Your task to perform on an android device: uninstall "Gboard" Image 0: 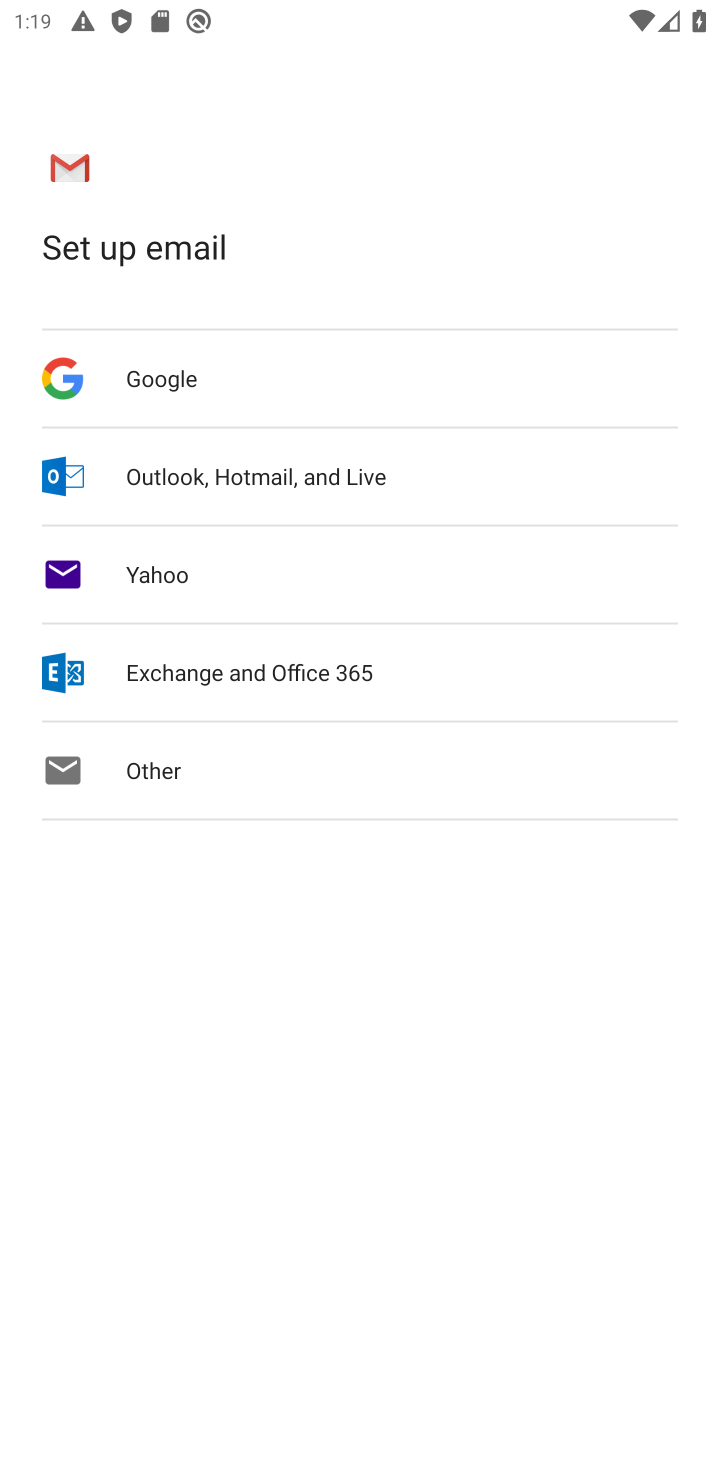
Step 0: press home button
Your task to perform on an android device: uninstall "Gboard" Image 1: 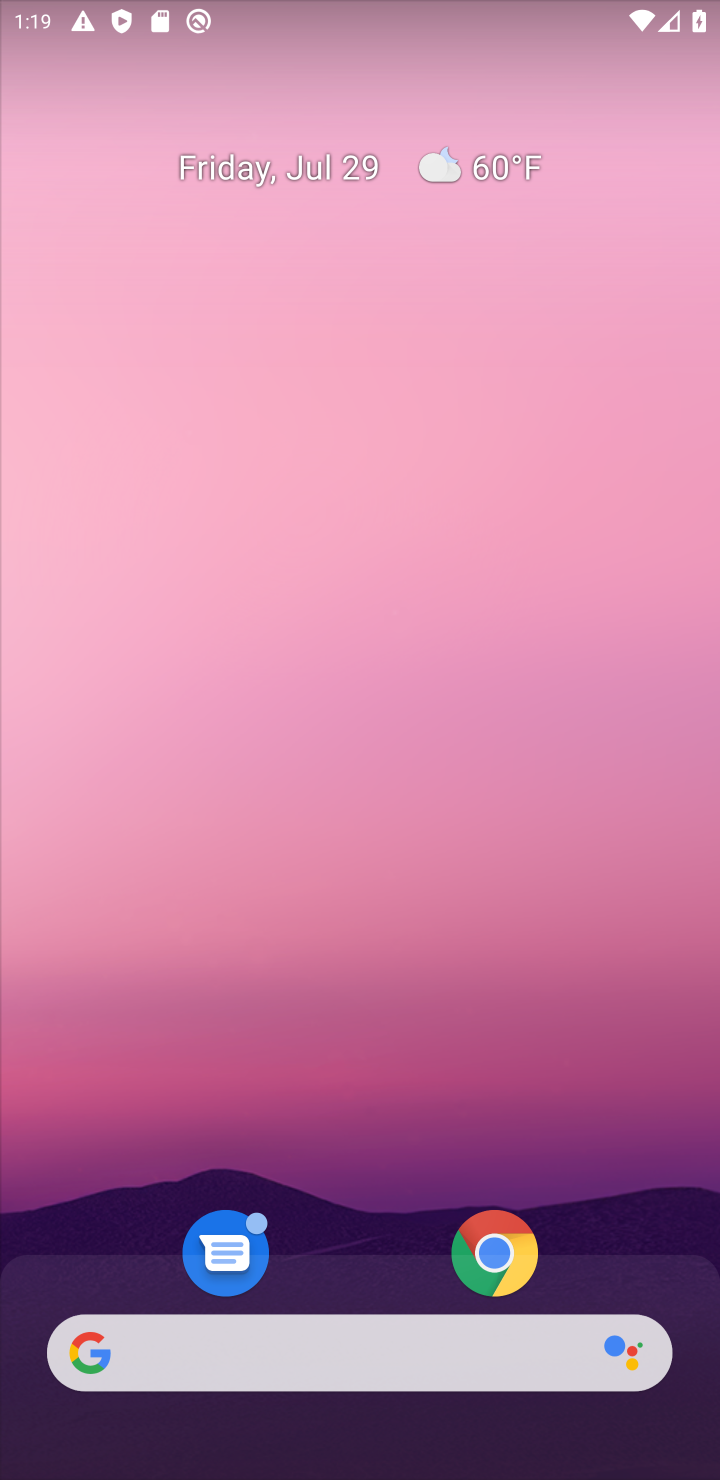
Step 1: drag from (296, 941) to (413, 226)
Your task to perform on an android device: uninstall "Gboard" Image 2: 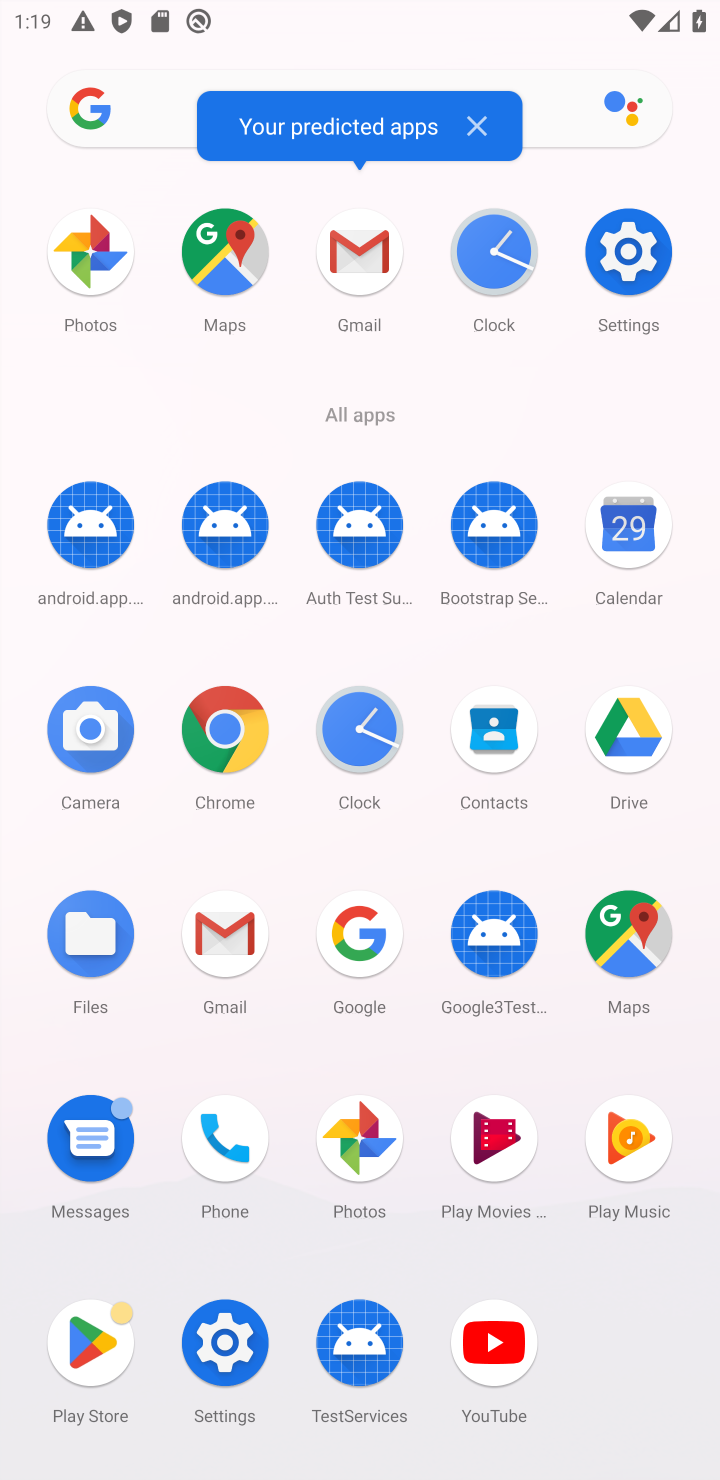
Step 2: click (52, 1351)
Your task to perform on an android device: uninstall "Gboard" Image 3: 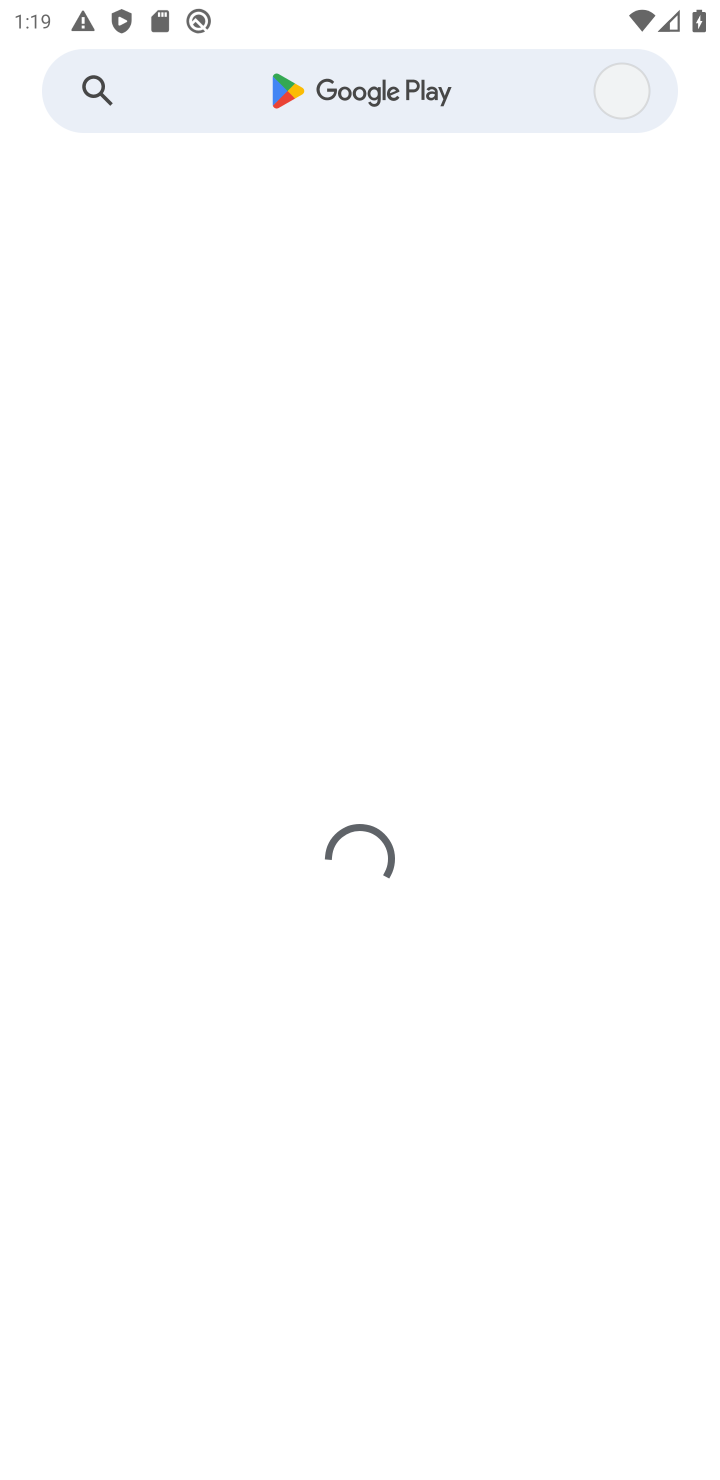
Step 3: click (95, 85)
Your task to perform on an android device: uninstall "Gboard" Image 4: 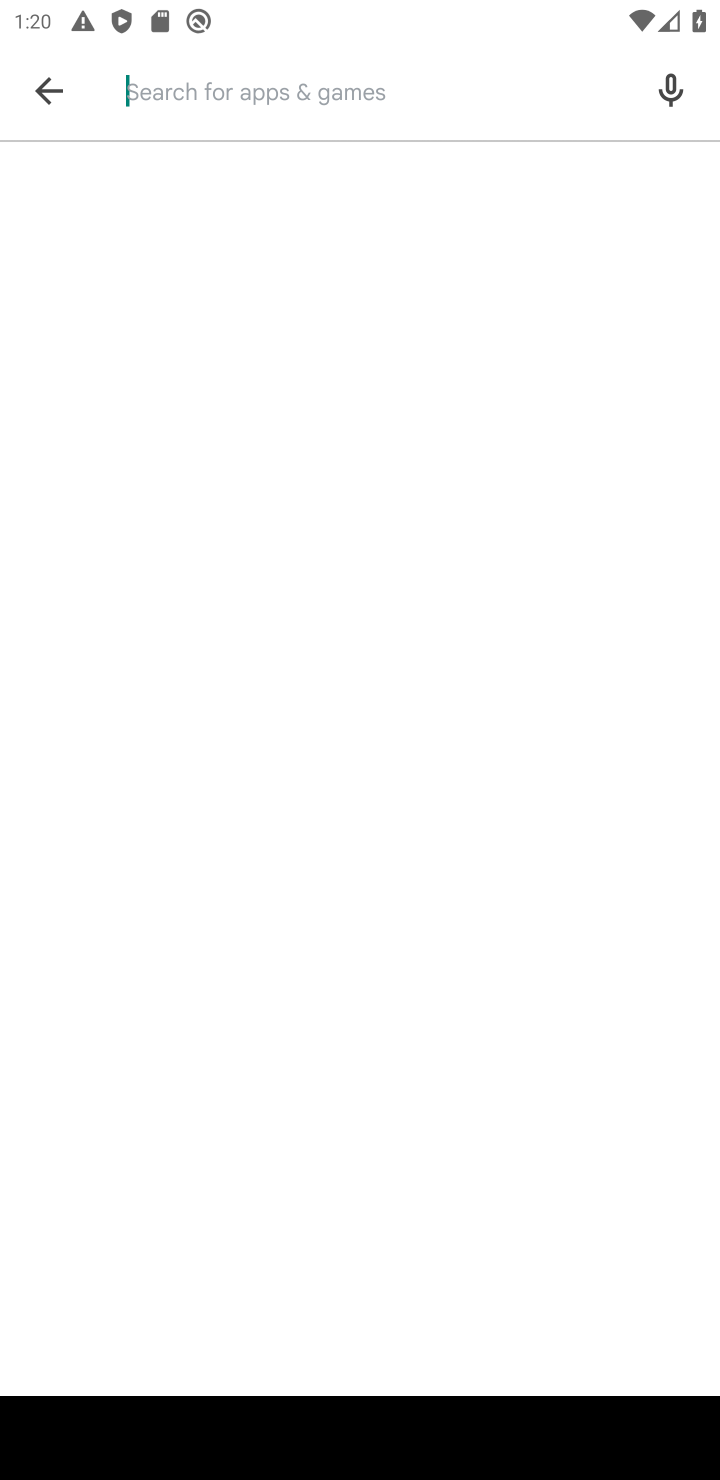
Step 4: type "gboard"
Your task to perform on an android device: uninstall "Gboard" Image 5: 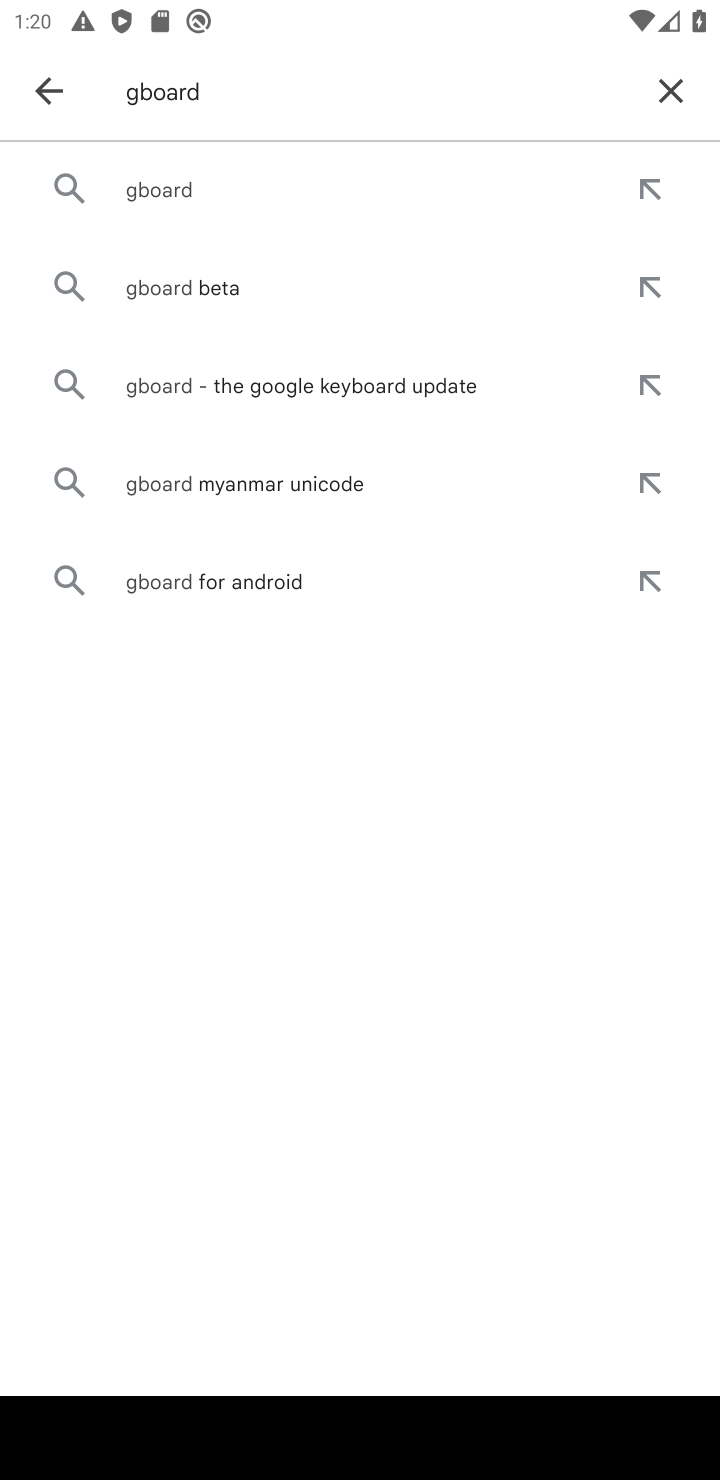
Step 5: click (225, 189)
Your task to perform on an android device: uninstall "Gboard" Image 6: 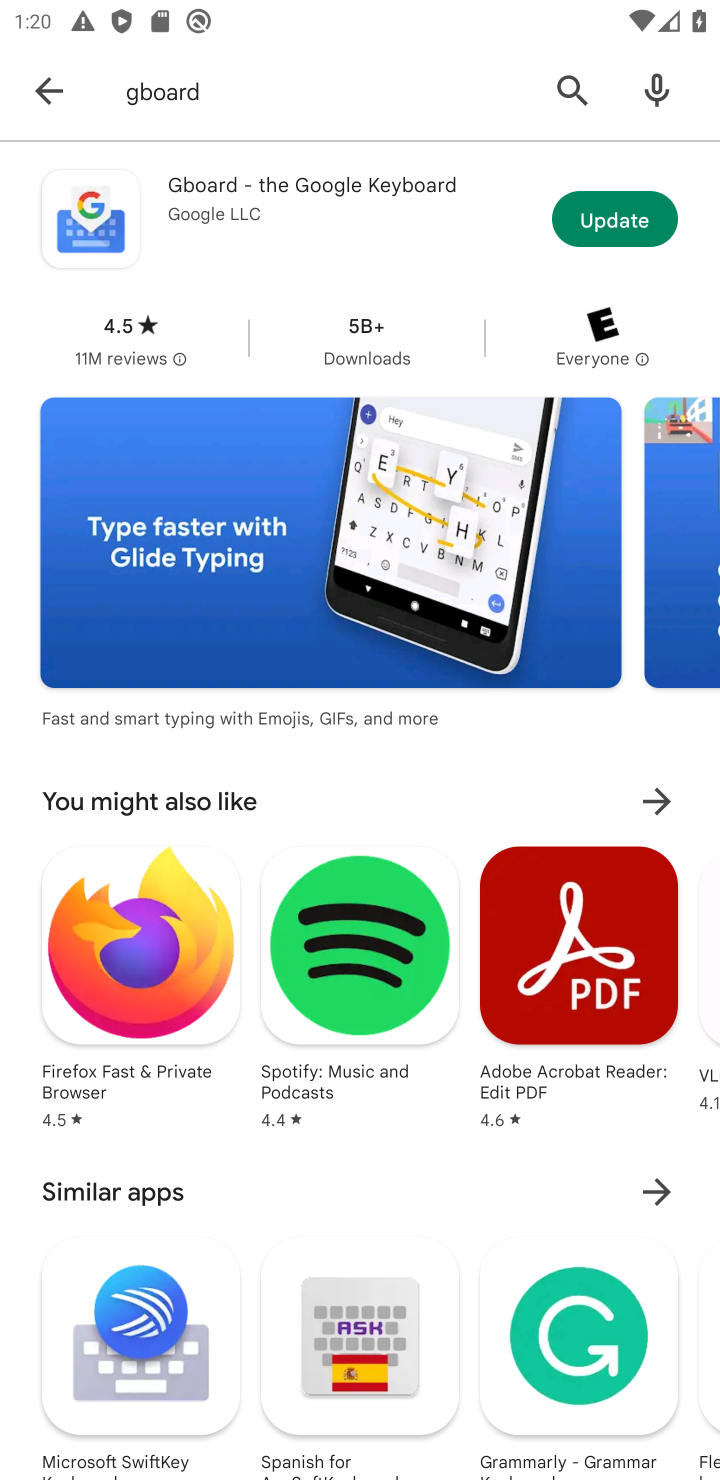
Step 6: click (595, 222)
Your task to perform on an android device: uninstall "Gboard" Image 7: 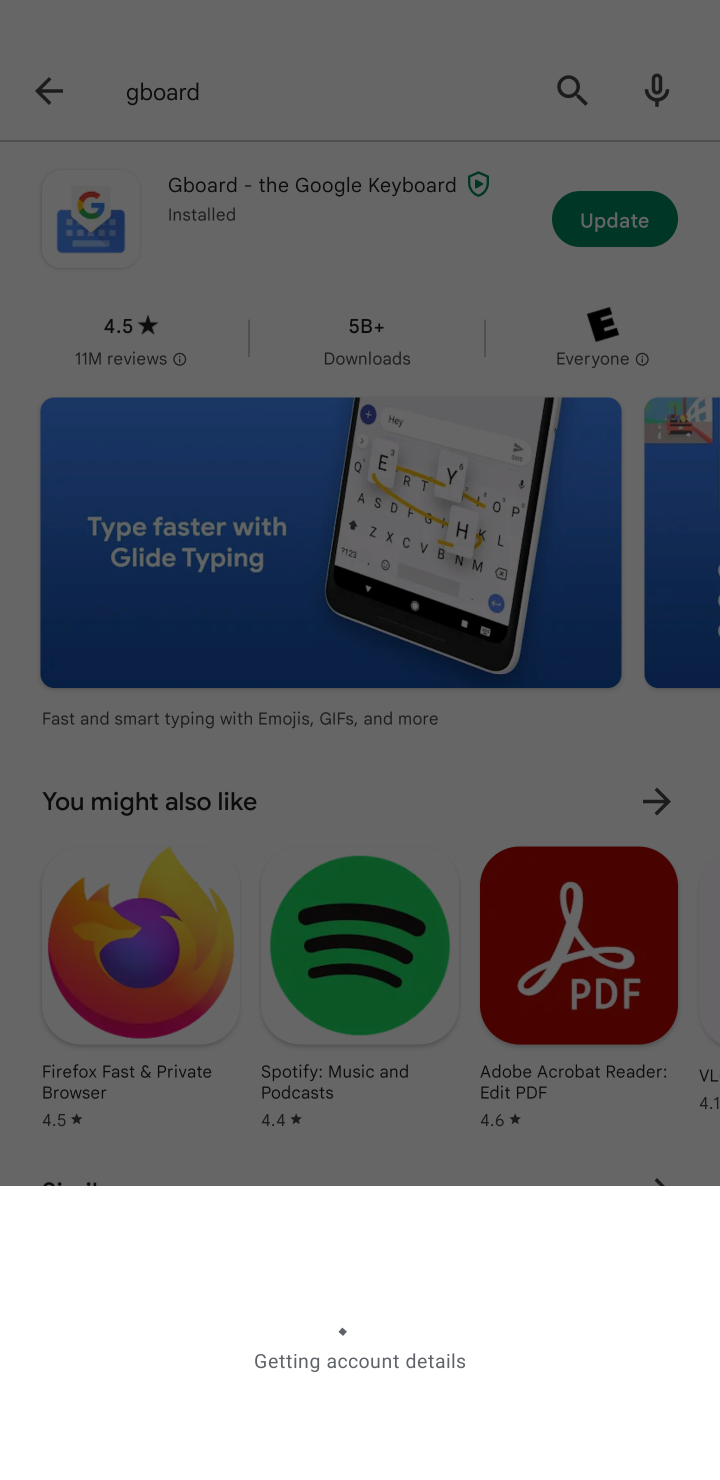
Step 7: click (610, 215)
Your task to perform on an android device: uninstall "Gboard" Image 8: 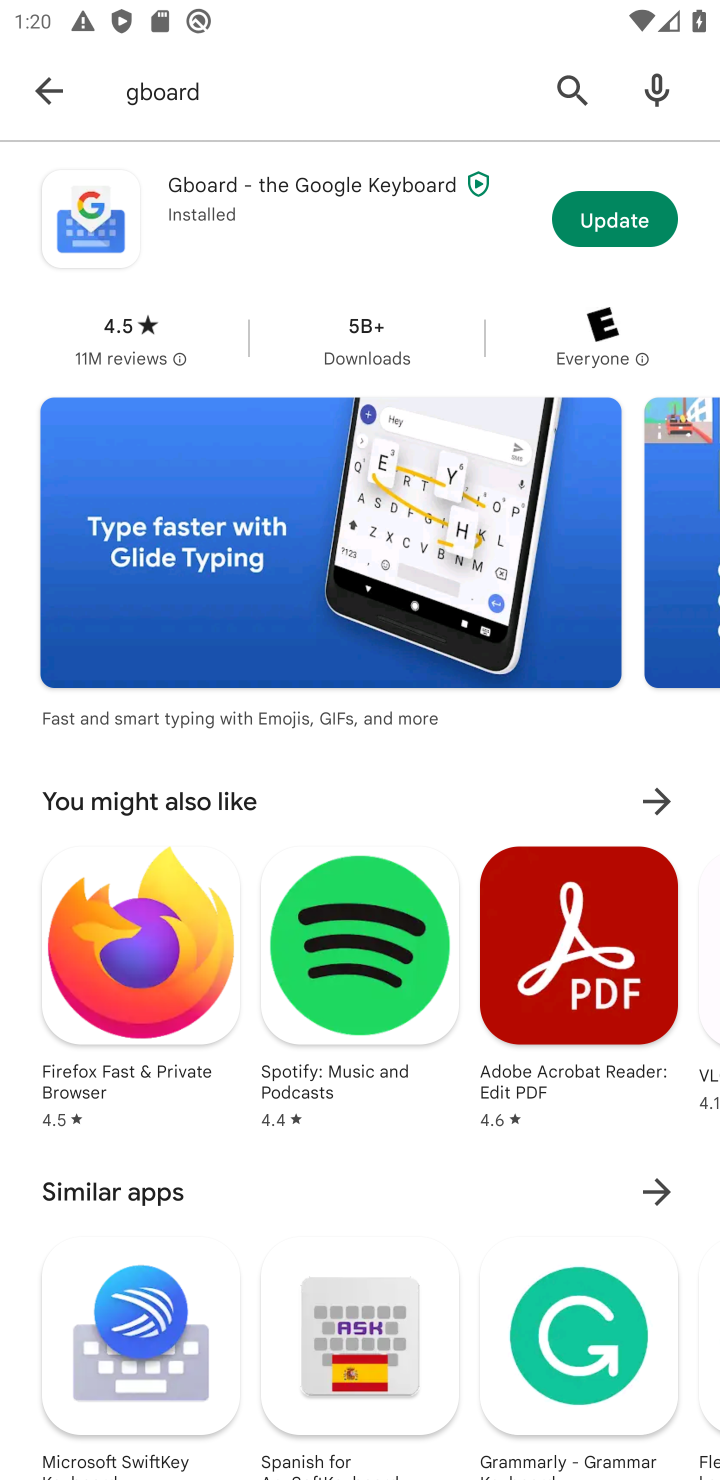
Step 8: click (607, 205)
Your task to perform on an android device: uninstall "Gboard" Image 9: 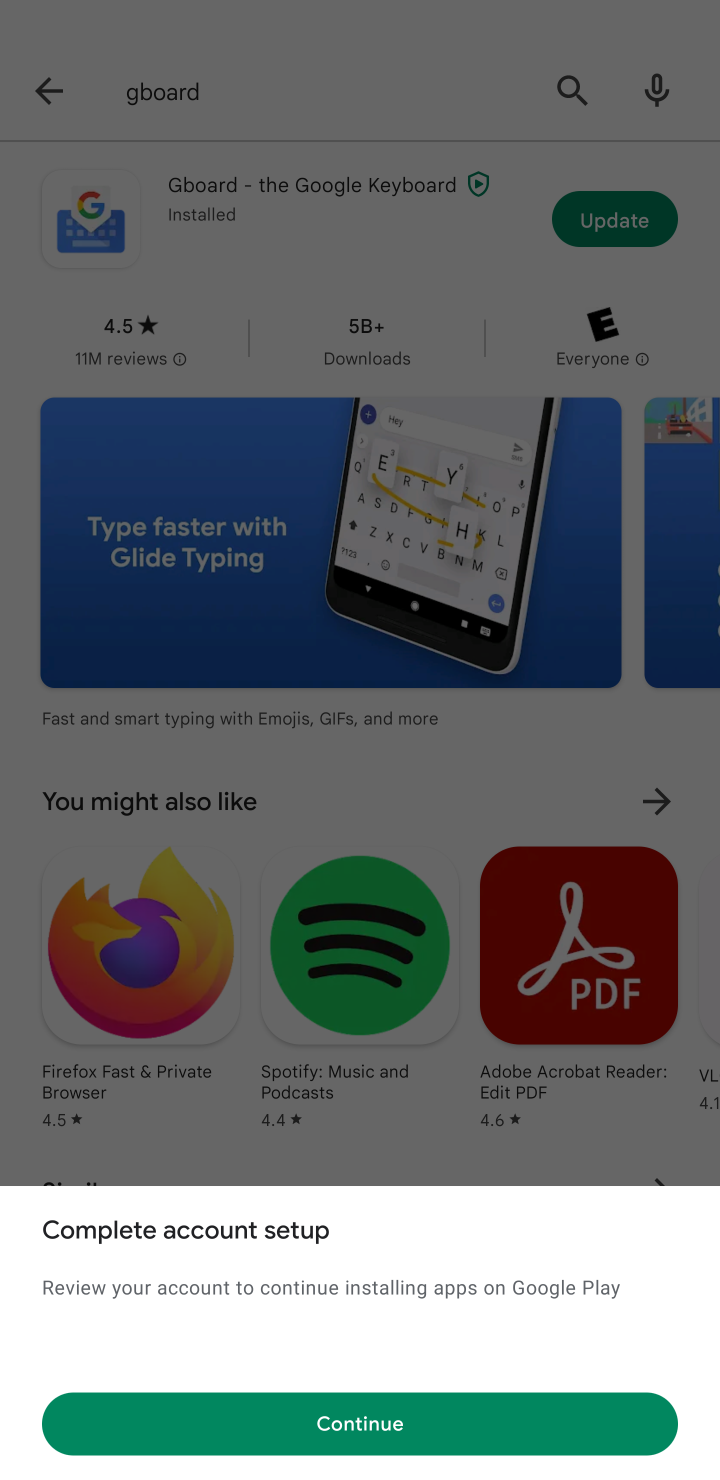
Step 9: click (273, 1407)
Your task to perform on an android device: uninstall "Gboard" Image 10: 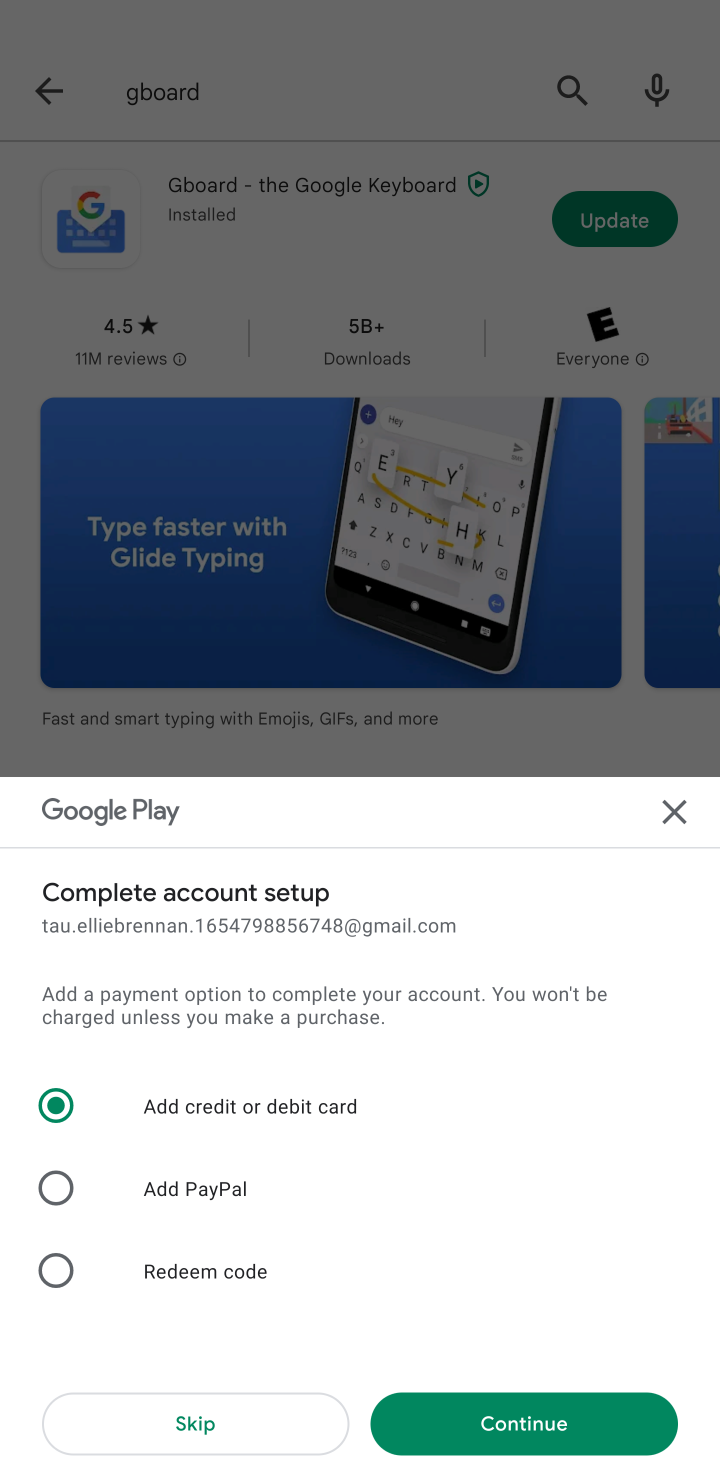
Step 10: click (180, 1424)
Your task to perform on an android device: uninstall "Gboard" Image 11: 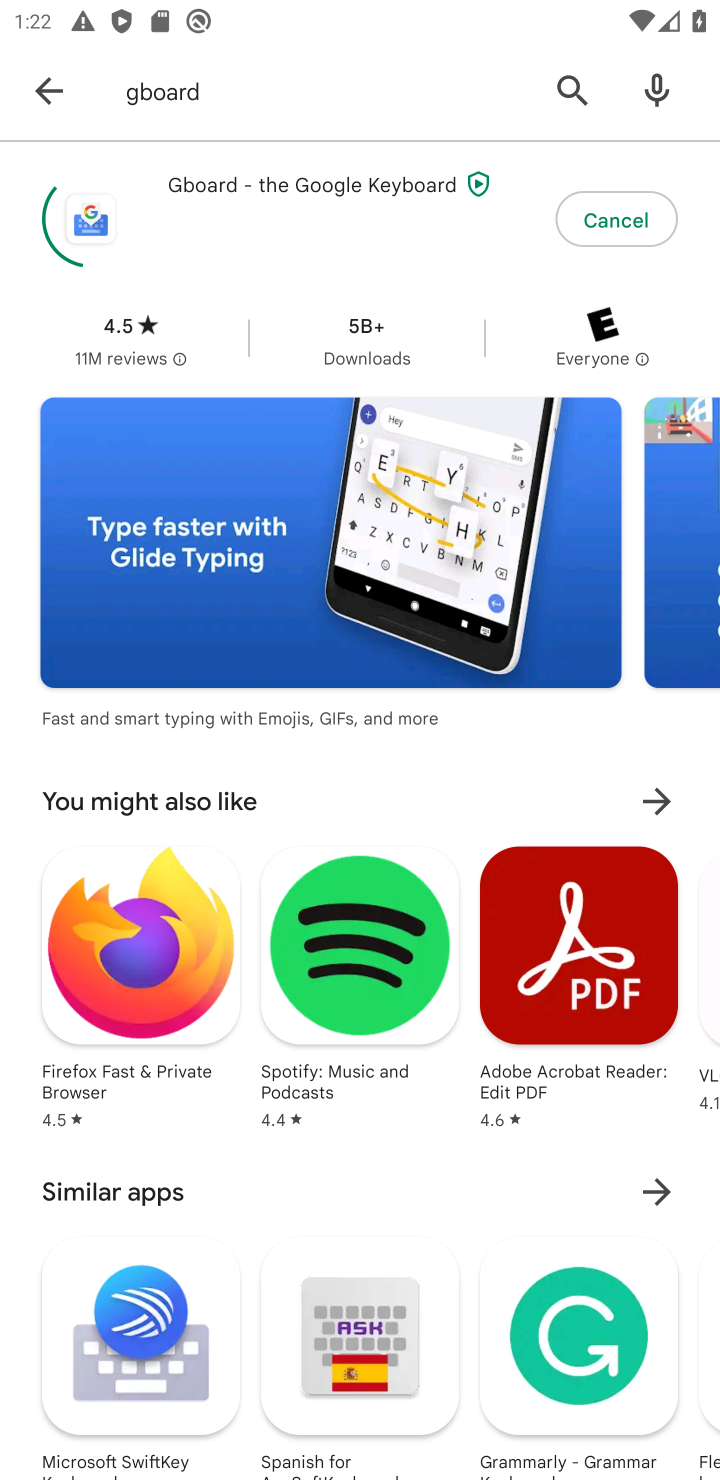
Step 11: task complete